Your task to perform on an android device: Open Yahoo.com Image 0: 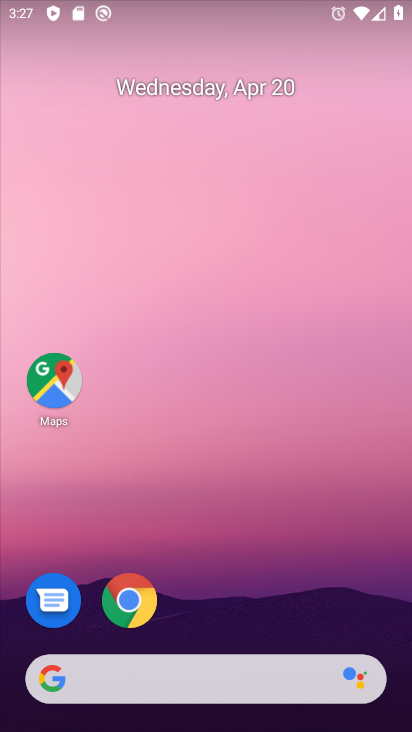
Step 0: drag from (328, 621) to (249, 326)
Your task to perform on an android device: Open Yahoo.com Image 1: 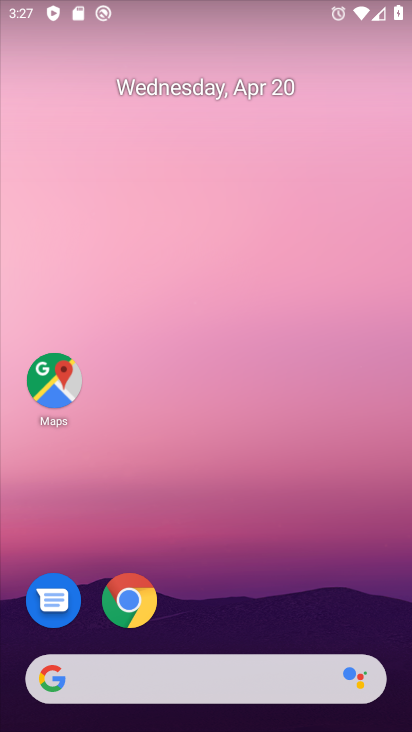
Step 1: drag from (259, 590) to (234, 274)
Your task to perform on an android device: Open Yahoo.com Image 2: 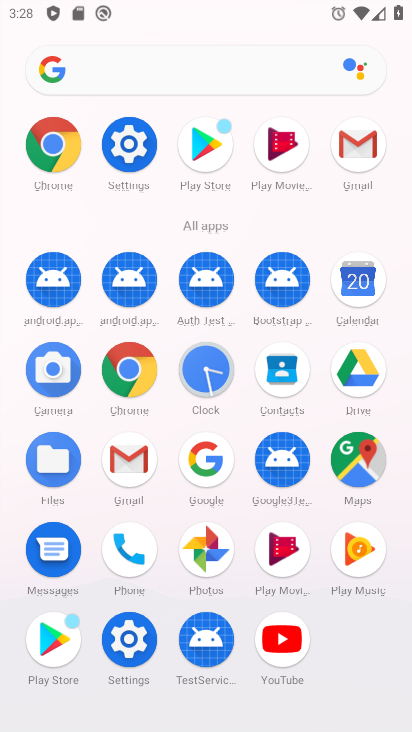
Step 2: click (43, 144)
Your task to perform on an android device: Open Yahoo.com Image 3: 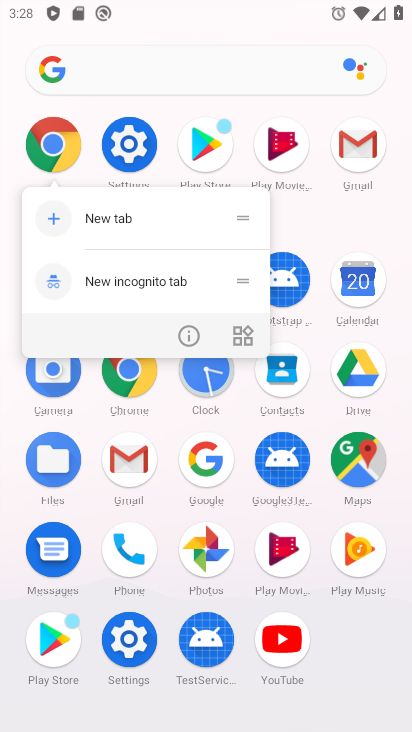
Step 3: click (43, 144)
Your task to perform on an android device: Open Yahoo.com Image 4: 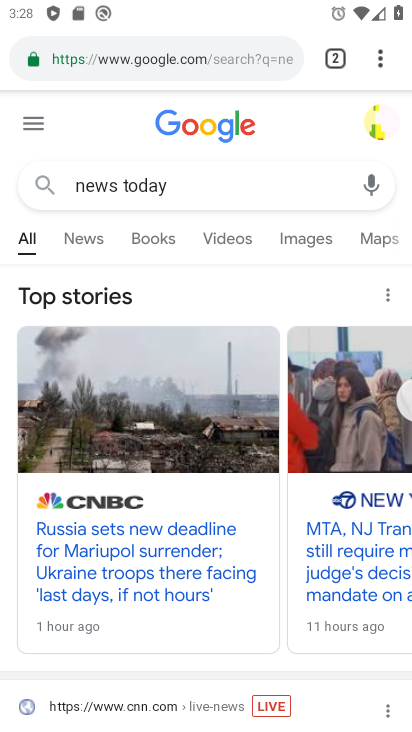
Step 4: click (384, 51)
Your task to perform on an android device: Open Yahoo.com Image 5: 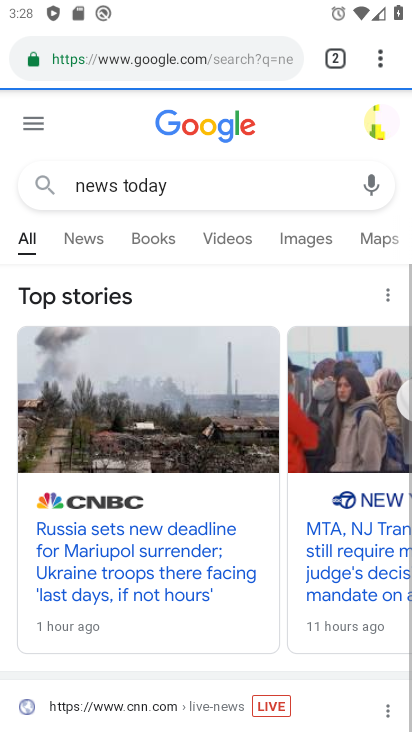
Step 5: click (374, 66)
Your task to perform on an android device: Open Yahoo.com Image 6: 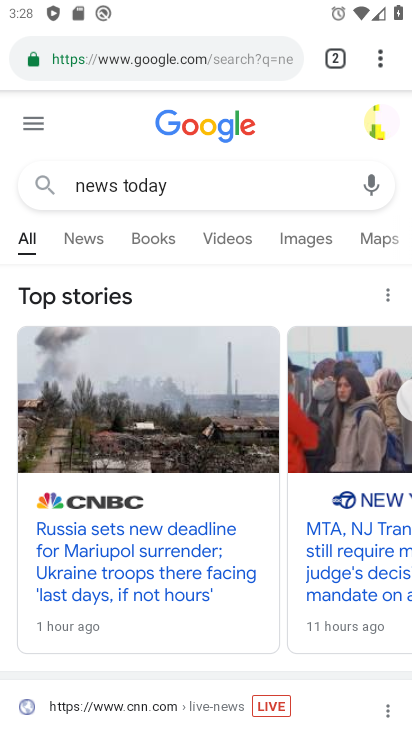
Step 6: click (374, 66)
Your task to perform on an android device: Open Yahoo.com Image 7: 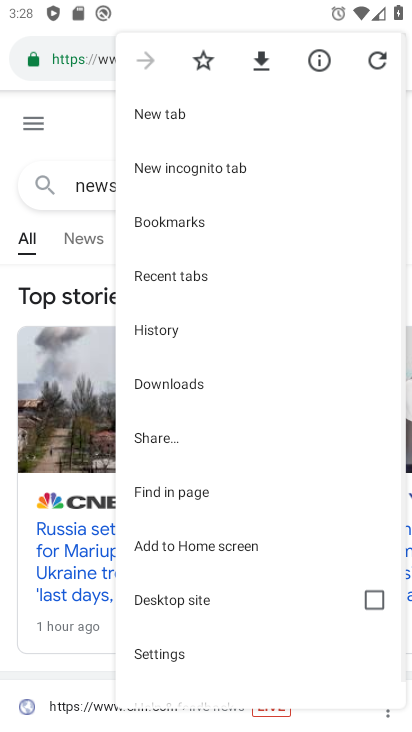
Step 7: click (220, 123)
Your task to perform on an android device: Open Yahoo.com Image 8: 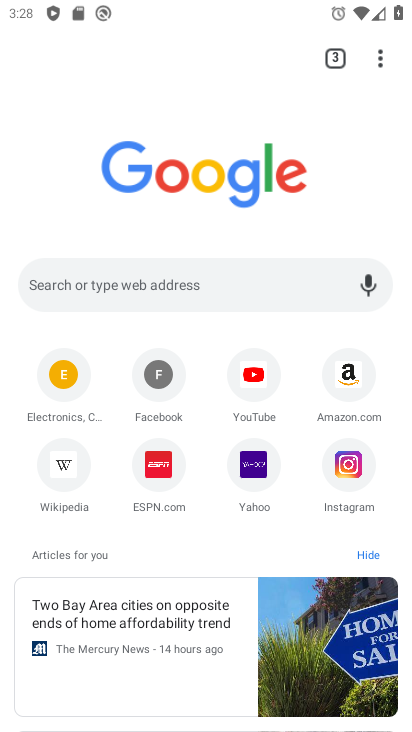
Step 8: click (255, 463)
Your task to perform on an android device: Open Yahoo.com Image 9: 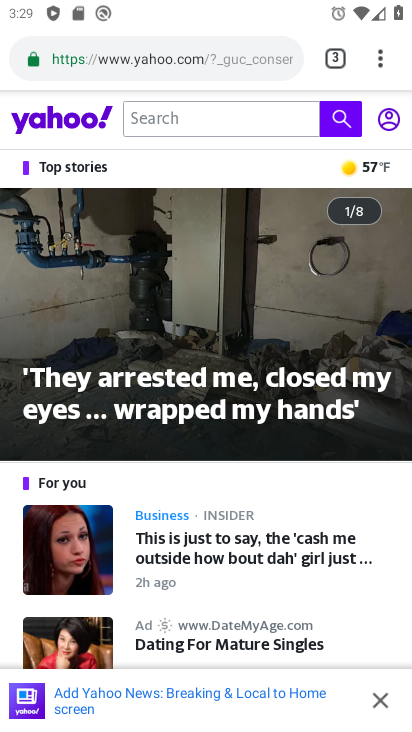
Step 9: task complete